Your task to perform on an android device: turn pop-ups on in chrome Image 0: 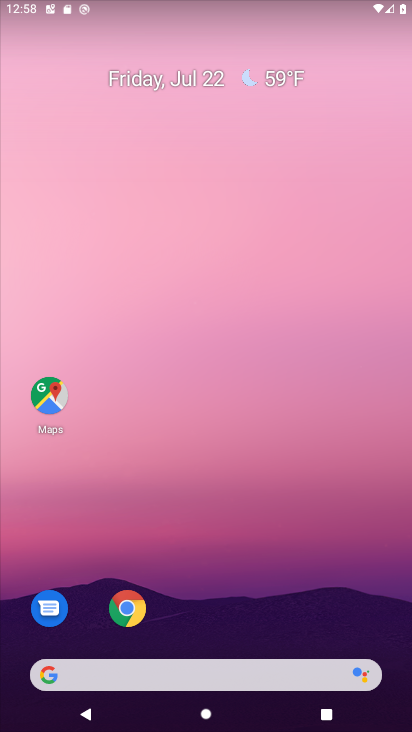
Step 0: drag from (234, 592) to (251, 20)
Your task to perform on an android device: turn pop-ups on in chrome Image 1: 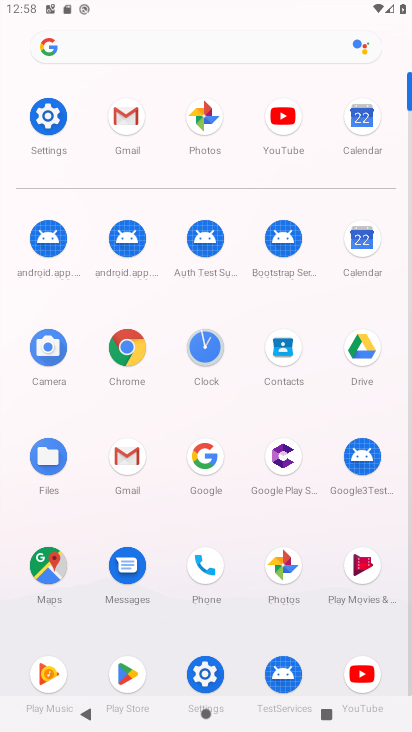
Step 1: click (117, 352)
Your task to perform on an android device: turn pop-ups on in chrome Image 2: 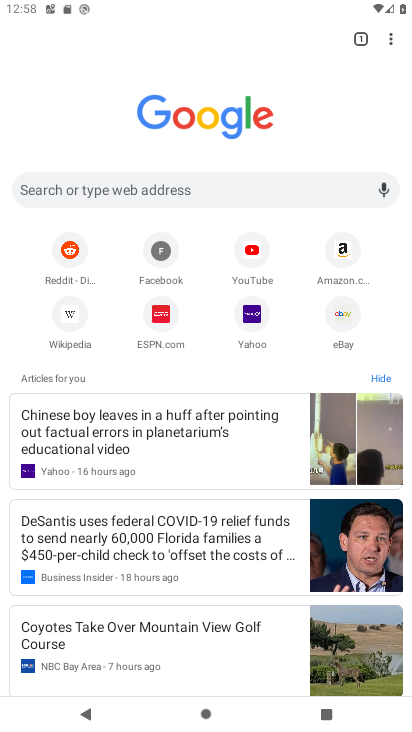
Step 2: click (390, 40)
Your task to perform on an android device: turn pop-ups on in chrome Image 3: 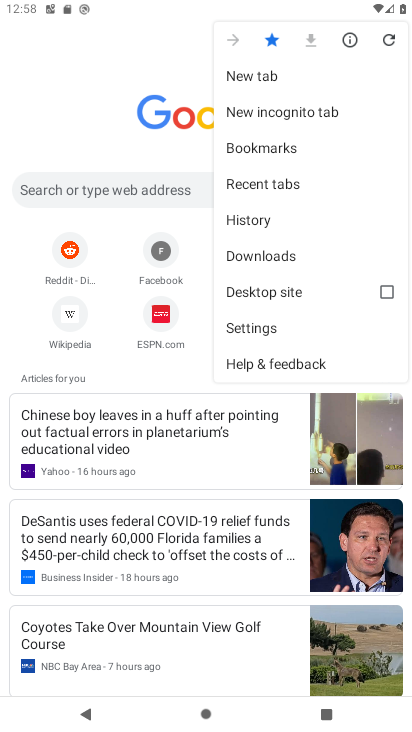
Step 3: click (255, 331)
Your task to perform on an android device: turn pop-ups on in chrome Image 4: 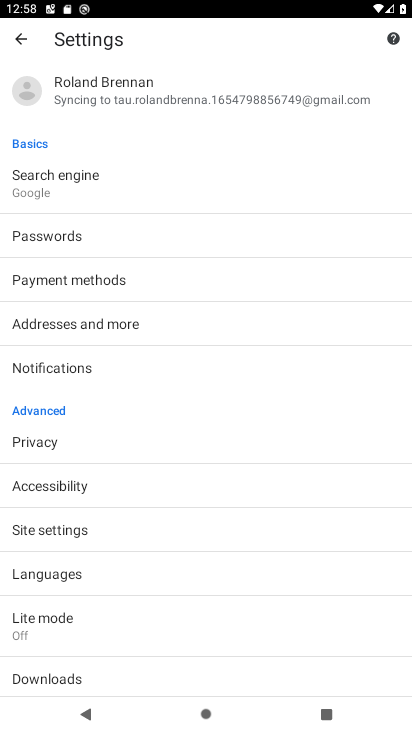
Step 4: click (61, 535)
Your task to perform on an android device: turn pop-ups on in chrome Image 5: 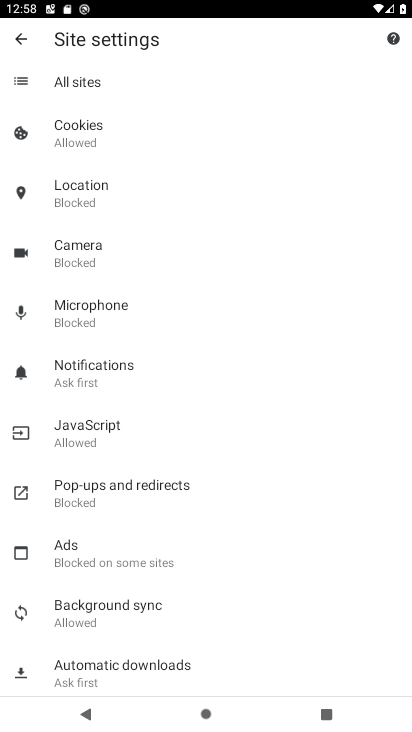
Step 5: click (113, 500)
Your task to perform on an android device: turn pop-ups on in chrome Image 6: 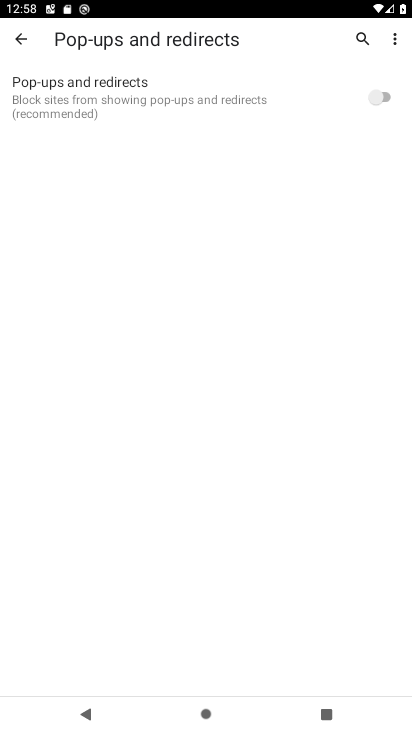
Step 6: click (363, 91)
Your task to perform on an android device: turn pop-ups on in chrome Image 7: 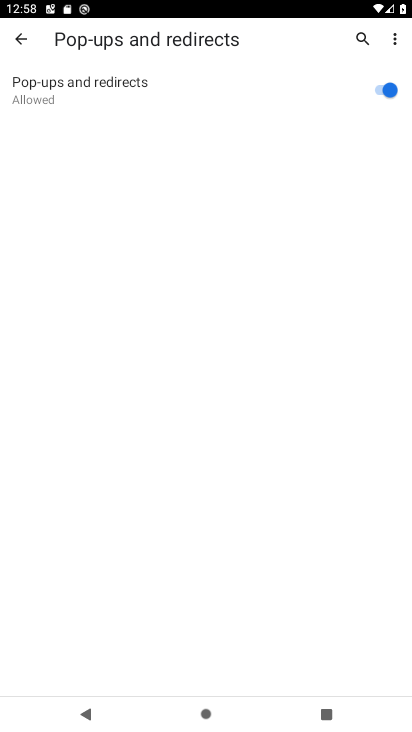
Step 7: task complete